Your task to perform on an android device: all mails in gmail Image 0: 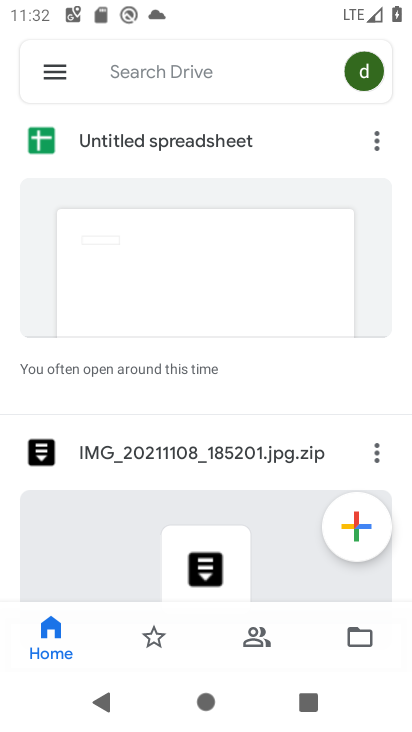
Step 0: press home button
Your task to perform on an android device: all mails in gmail Image 1: 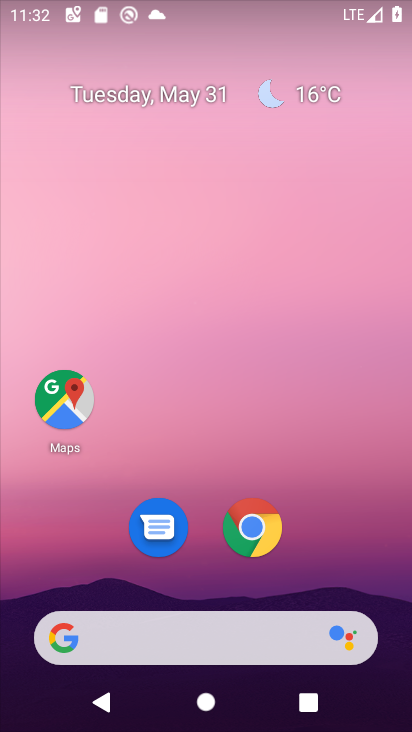
Step 1: drag from (340, 602) to (346, 0)
Your task to perform on an android device: all mails in gmail Image 2: 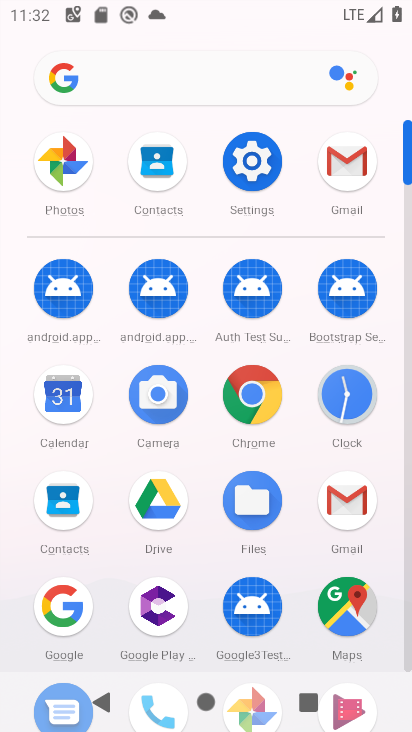
Step 2: click (339, 170)
Your task to perform on an android device: all mails in gmail Image 3: 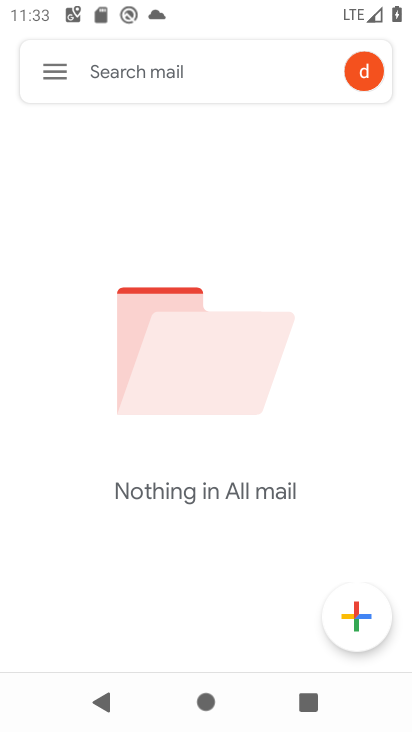
Step 3: task complete